Your task to perform on an android device: Go to privacy settings Image 0: 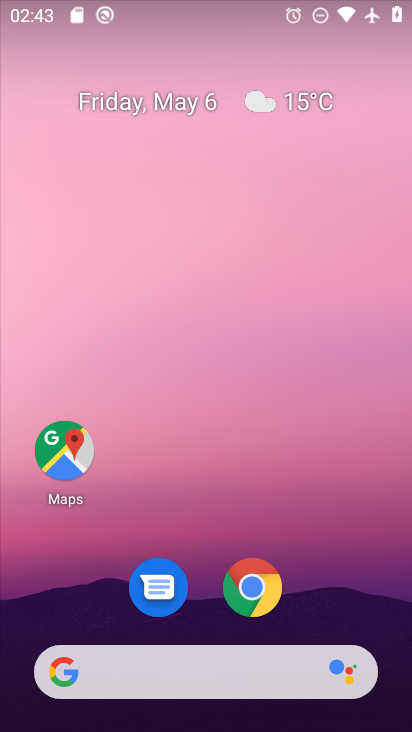
Step 0: drag from (329, 593) to (199, 1)
Your task to perform on an android device: Go to privacy settings Image 1: 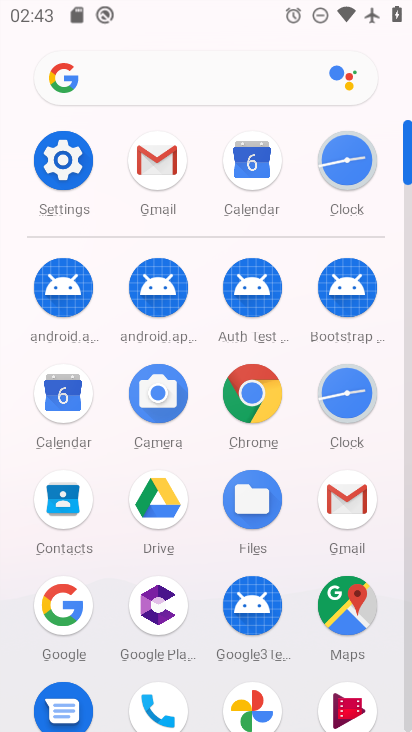
Step 1: click (78, 168)
Your task to perform on an android device: Go to privacy settings Image 2: 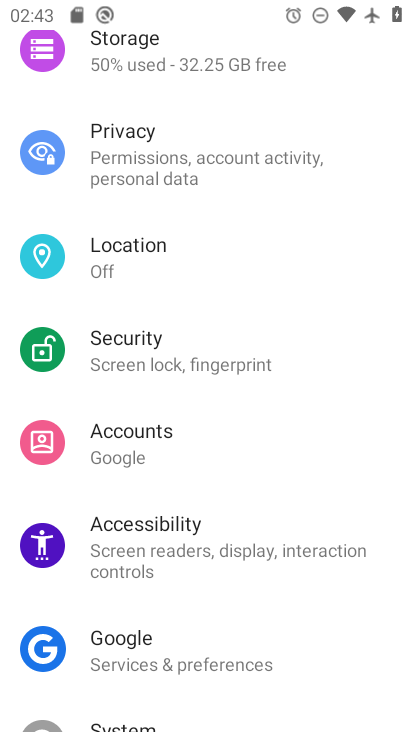
Step 2: click (173, 157)
Your task to perform on an android device: Go to privacy settings Image 3: 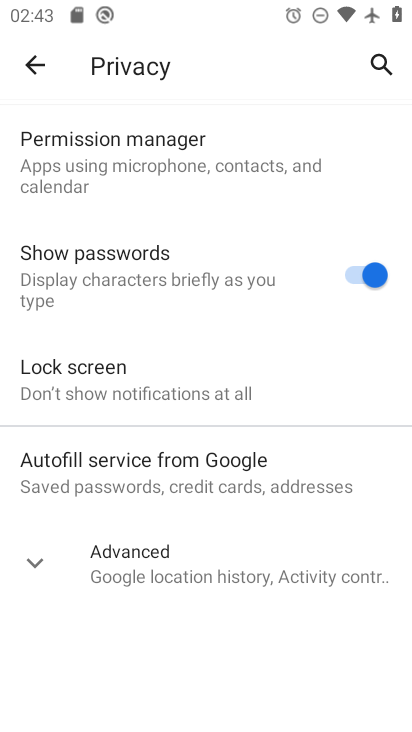
Step 3: task complete